Your task to perform on an android device: Search for seafood restaurants on Google Maps Image 0: 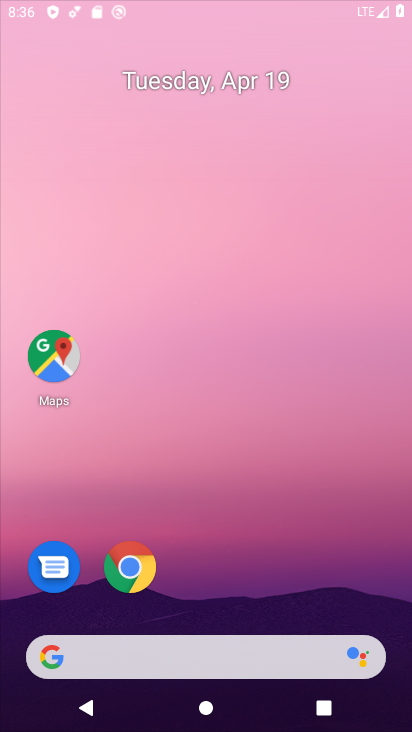
Step 0: drag from (299, 573) to (226, 8)
Your task to perform on an android device: Search for seafood restaurants on Google Maps Image 1: 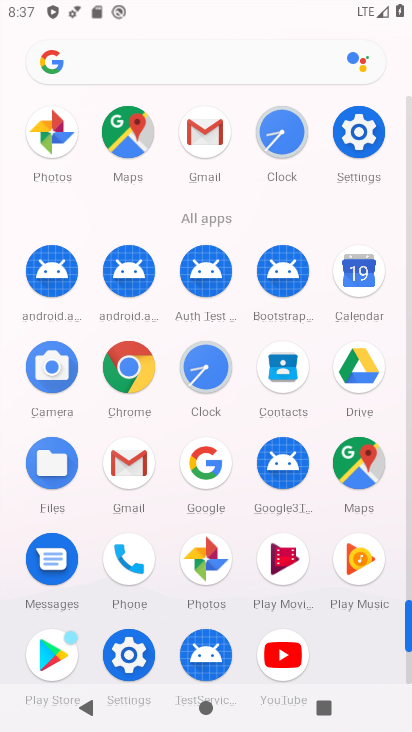
Step 1: click (139, 131)
Your task to perform on an android device: Search for seafood restaurants on Google Maps Image 2: 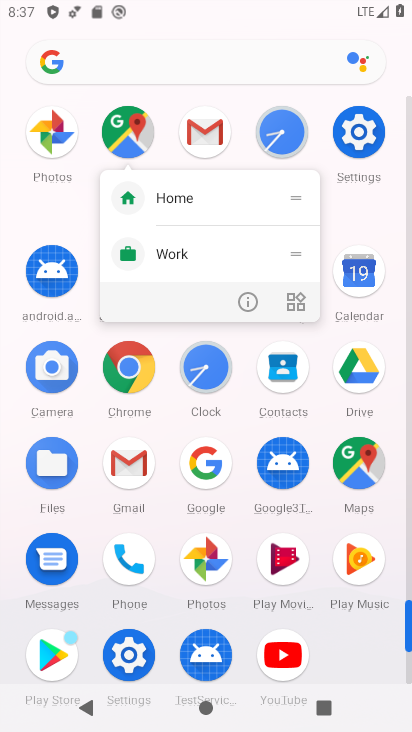
Step 2: click (119, 128)
Your task to perform on an android device: Search for seafood restaurants on Google Maps Image 3: 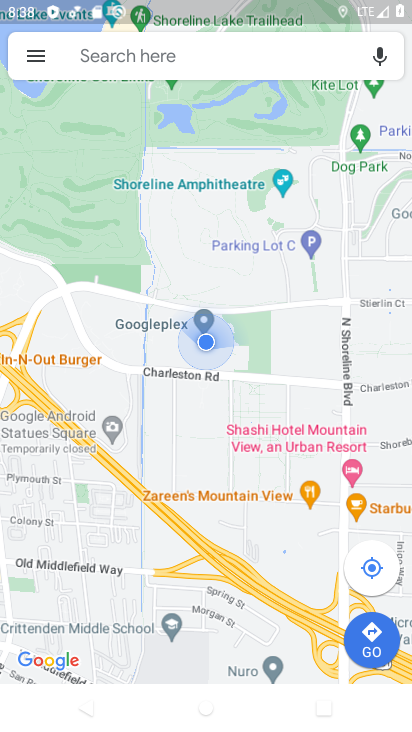
Step 3: click (221, 55)
Your task to perform on an android device: Search for seafood restaurants on Google Maps Image 4: 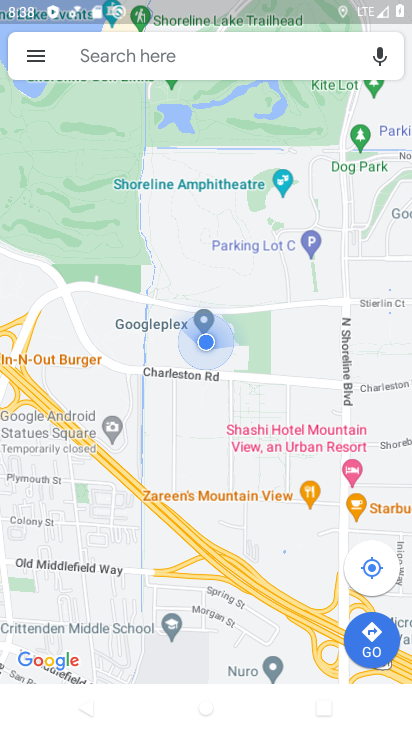
Step 4: click (221, 55)
Your task to perform on an android device: Search for seafood restaurants on Google Maps Image 5: 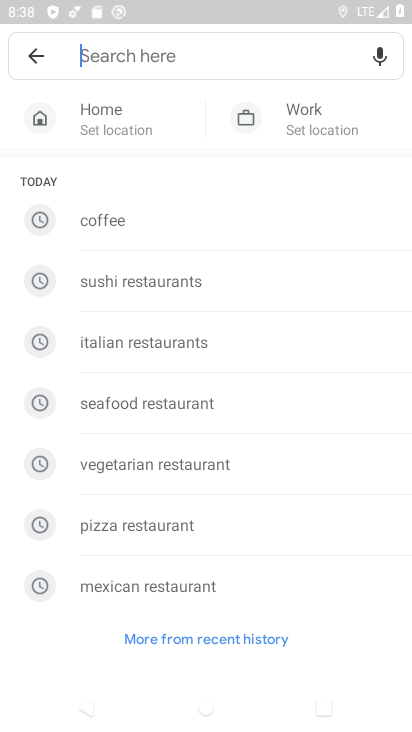
Step 5: click (221, 55)
Your task to perform on an android device: Search for seafood restaurants on Google Maps Image 6: 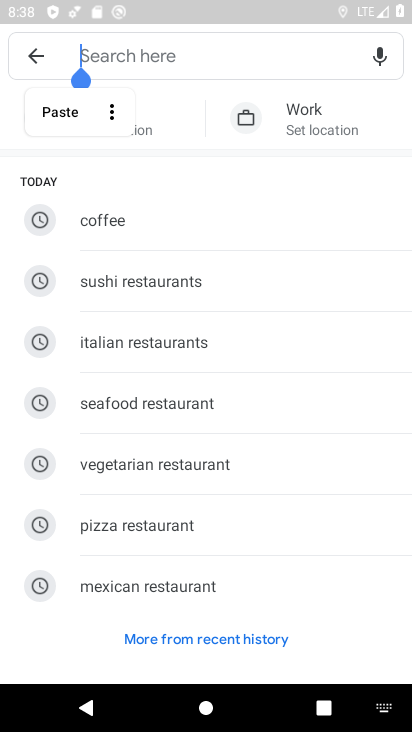
Step 6: click (221, 55)
Your task to perform on an android device: Search for seafood restaurants on Google Maps Image 7: 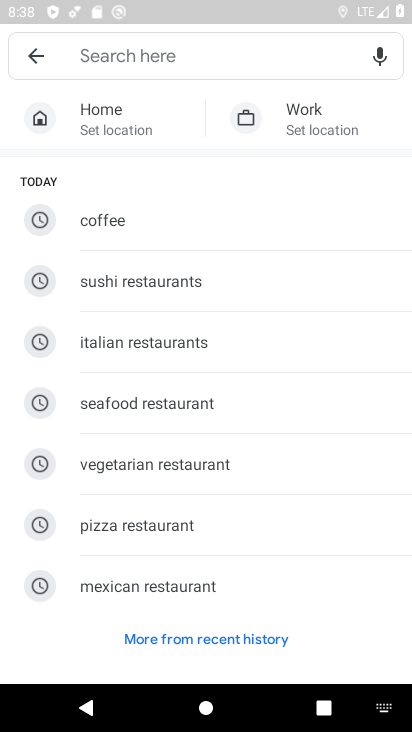
Step 7: type " seafood restaurants "
Your task to perform on an android device: Search for seafood restaurants on Google Maps Image 8: 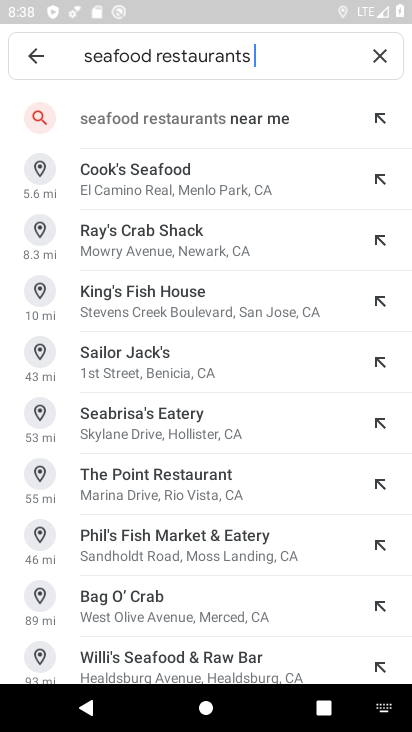
Step 8: click (146, 119)
Your task to perform on an android device: Search for seafood restaurants on Google Maps Image 9: 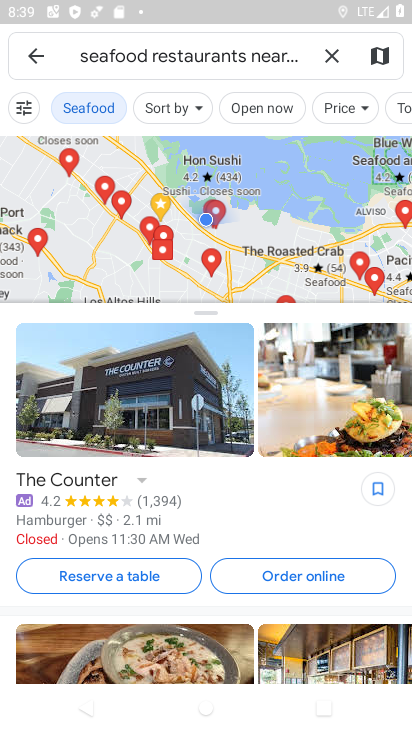
Step 9: task complete